Your task to perform on an android device: Go to internet settings Image 0: 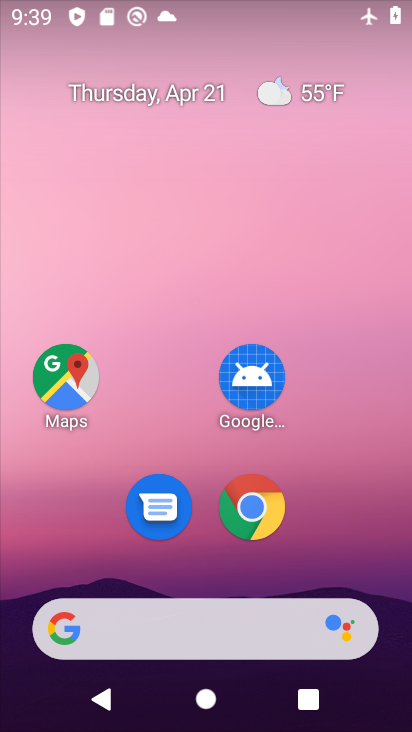
Step 0: drag from (307, 555) to (289, 152)
Your task to perform on an android device: Go to internet settings Image 1: 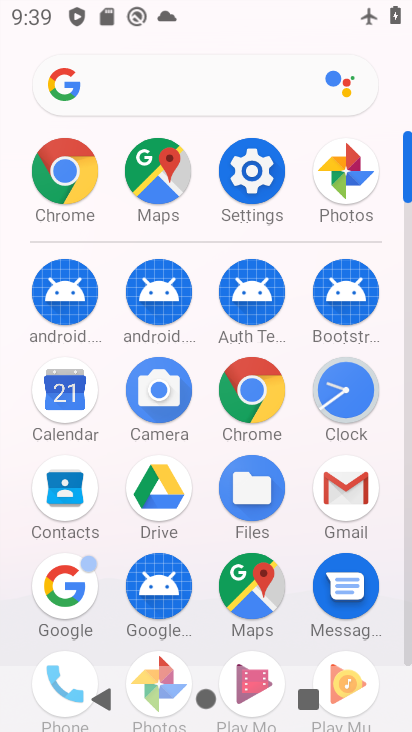
Step 1: click (242, 165)
Your task to perform on an android device: Go to internet settings Image 2: 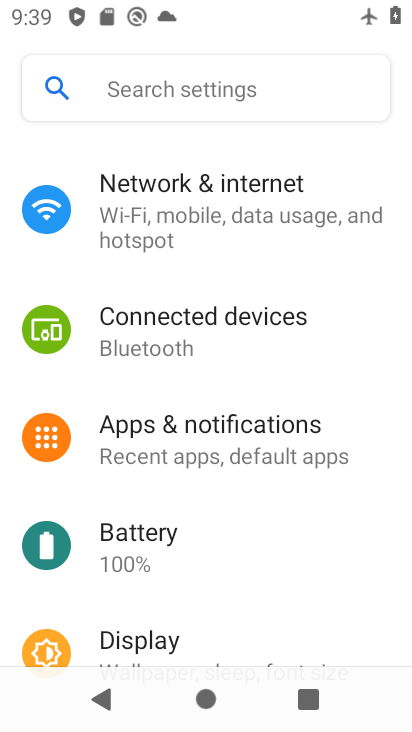
Step 2: click (178, 204)
Your task to perform on an android device: Go to internet settings Image 3: 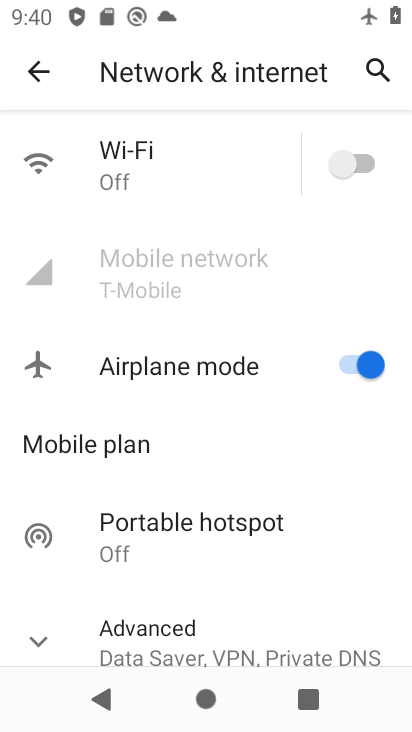
Step 3: task complete